Your task to perform on an android device: toggle priority inbox in the gmail app Image 0: 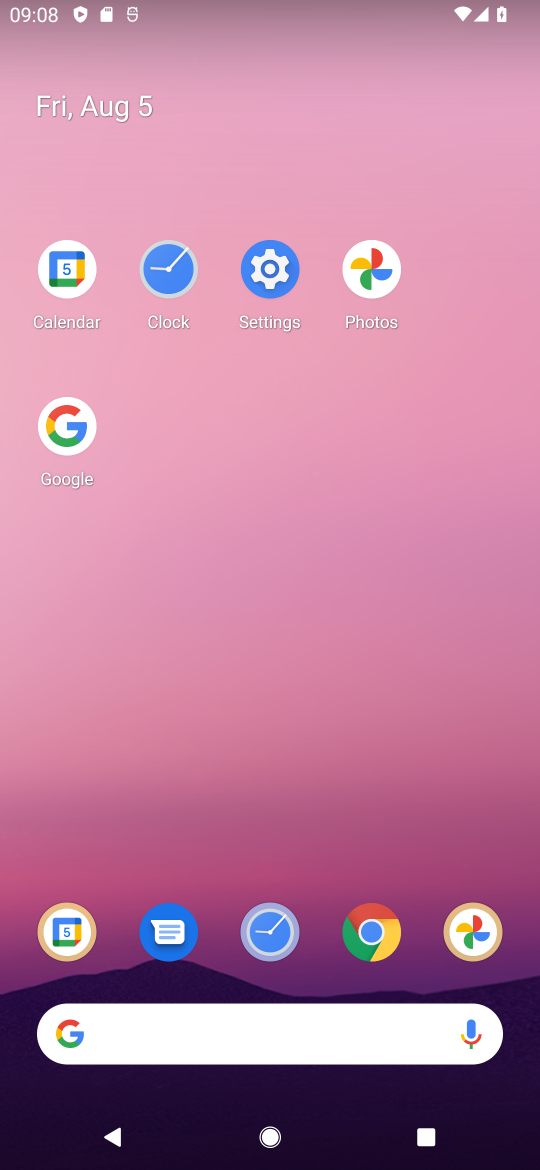
Step 0: drag from (324, 793) to (297, 284)
Your task to perform on an android device: toggle priority inbox in the gmail app Image 1: 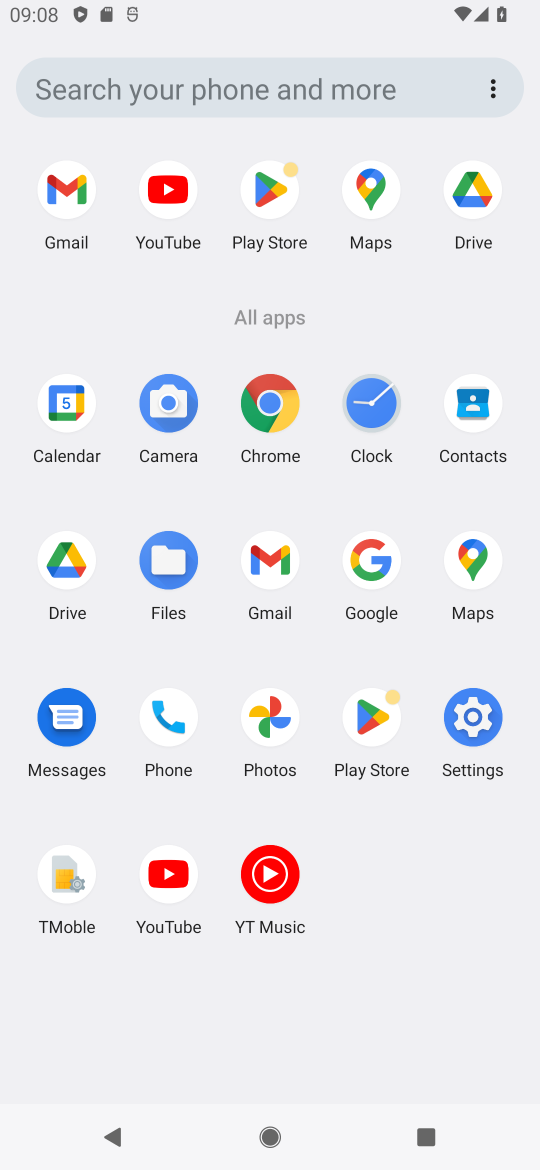
Step 1: drag from (275, 553) to (193, 443)
Your task to perform on an android device: toggle priority inbox in the gmail app Image 2: 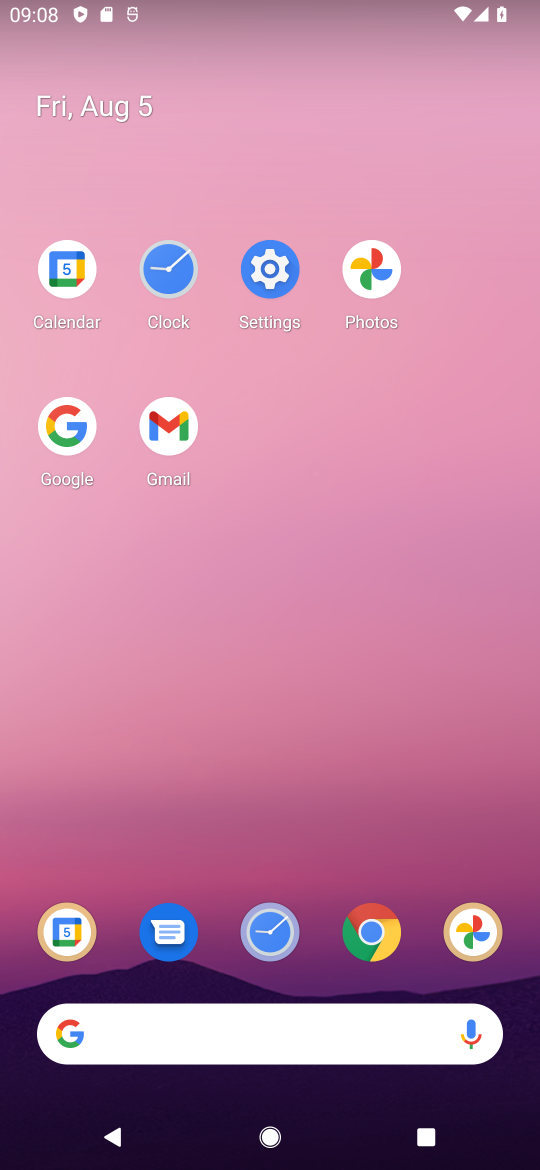
Step 2: click (163, 409)
Your task to perform on an android device: toggle priority inbox in the gmail app Image 3: 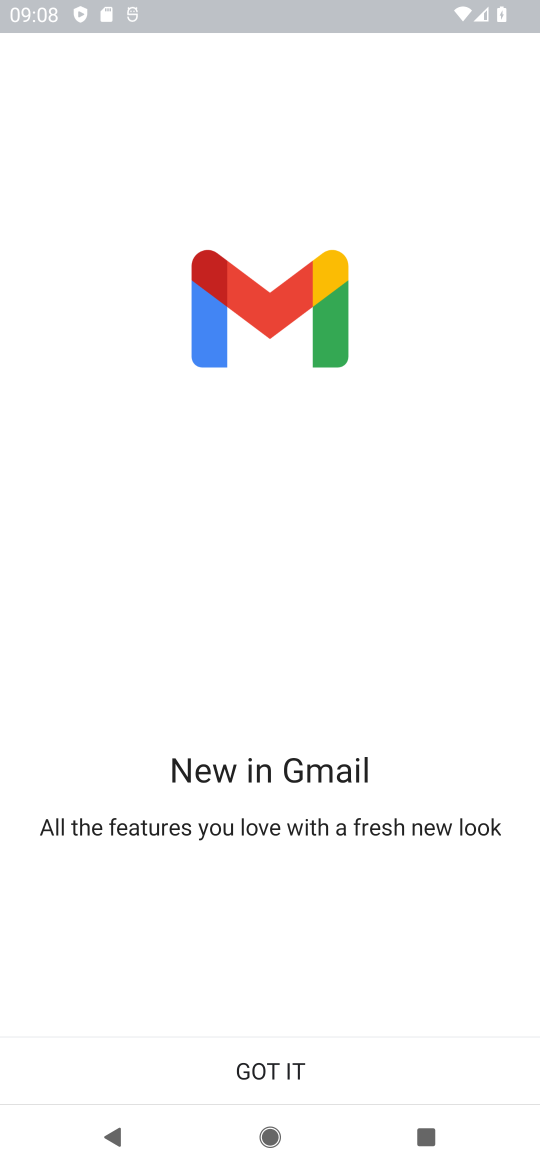
Step 3: click (317, 1058)
Your task to perform on an android device: toggle priority inbox in the gmail app Image 4: 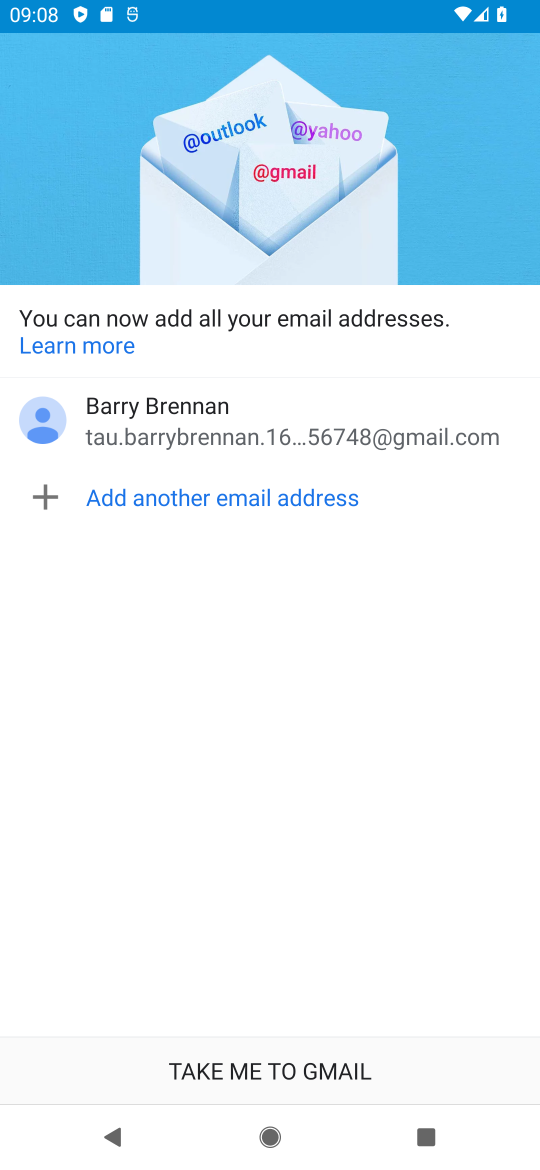
Step 4: click (314, 1042)
Your task to perform on an android device: toggle priority inbox in the gmail app Image 5: 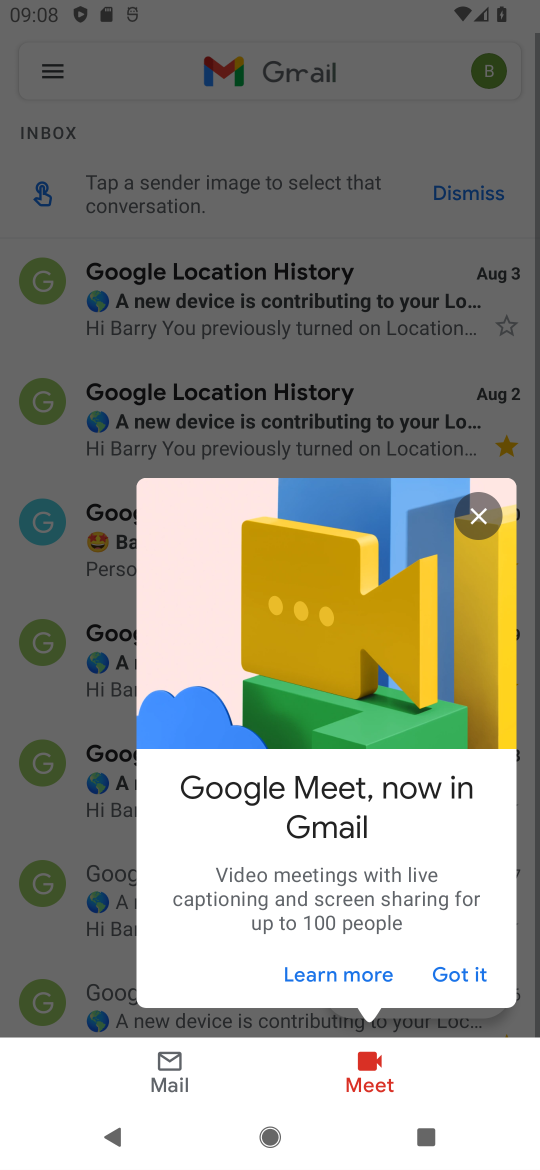
Step 5: click (461, 973)
Your task to perform on an android device: toggle priority inbox in the gmail app Image 6: 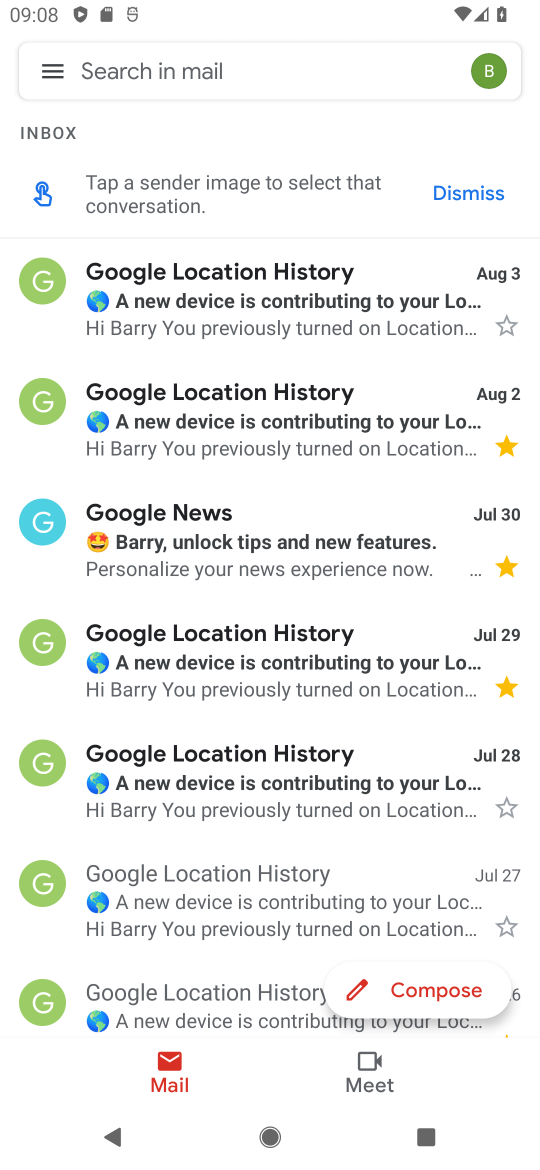
Step 6: click (50, 79)
Your task to perform on an android device: toggle priority inbox in the gmail app Image 7: 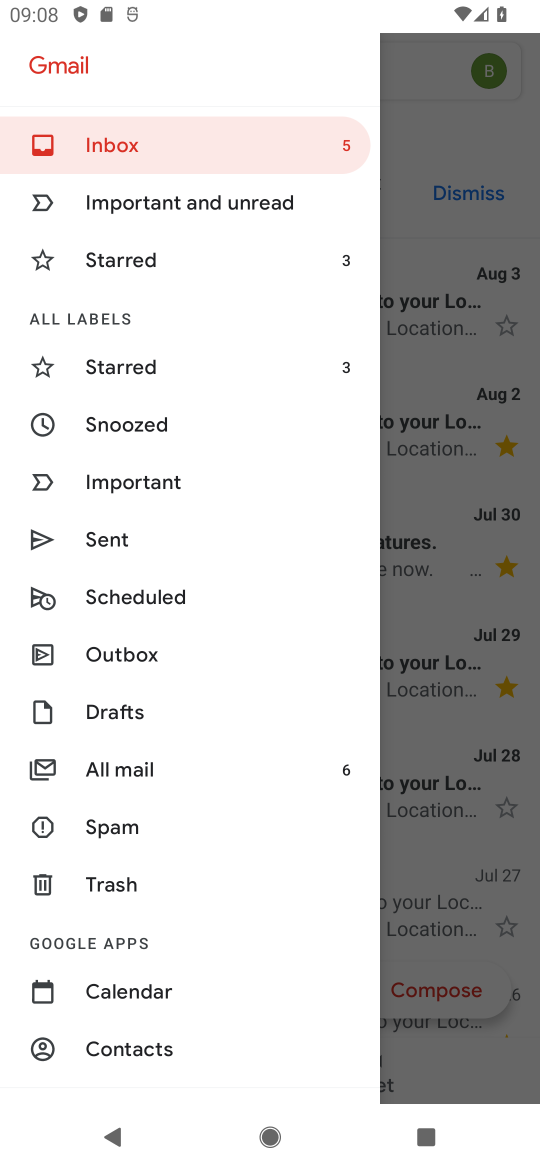
Step 7: drag from (235, 957) to (260, 435)
Your task to perform on an android device: toggle priority inbox in the gmail app Image 8: 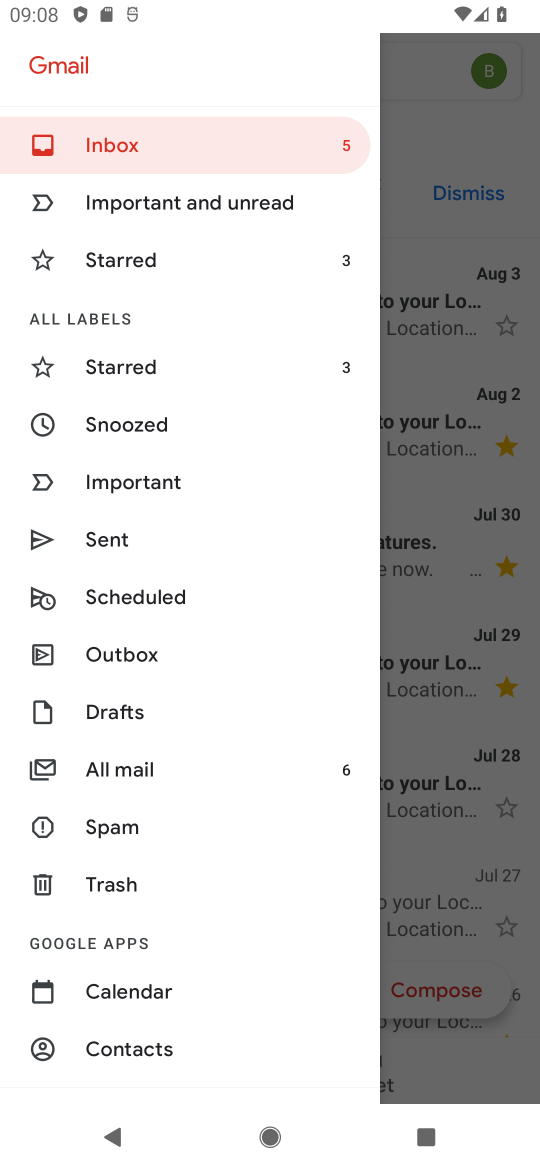
Step 8: drag from (194, 940) to (240, 362)
Your task to perform on an android device: toggle priority inbox in the gmail app Image 9: 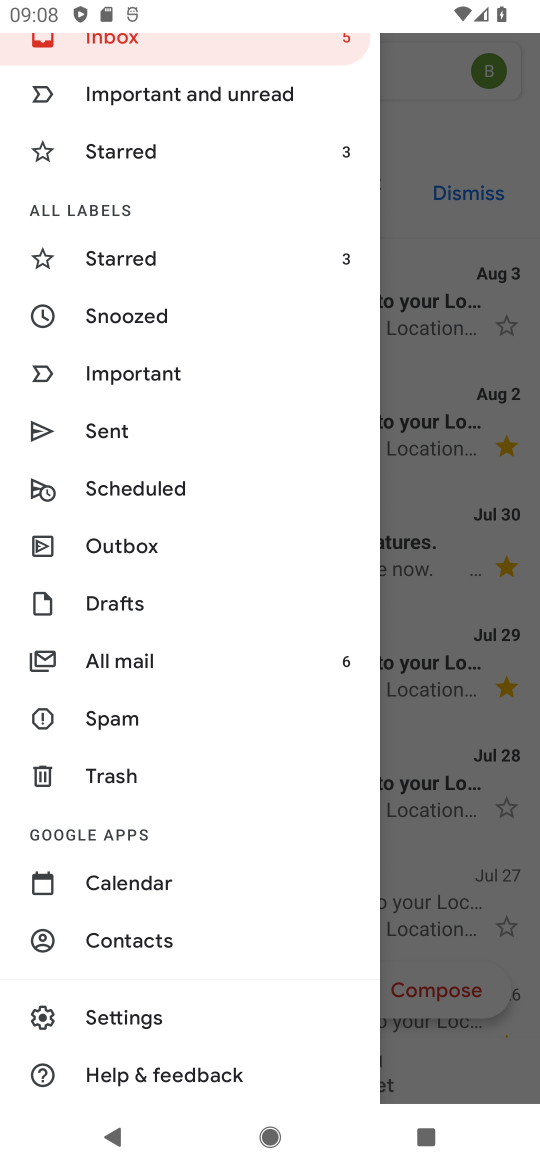
Step 9: click (135, 1017)
Your task to perform on an android device: toggle priority inbox in the gmail app Image 10: 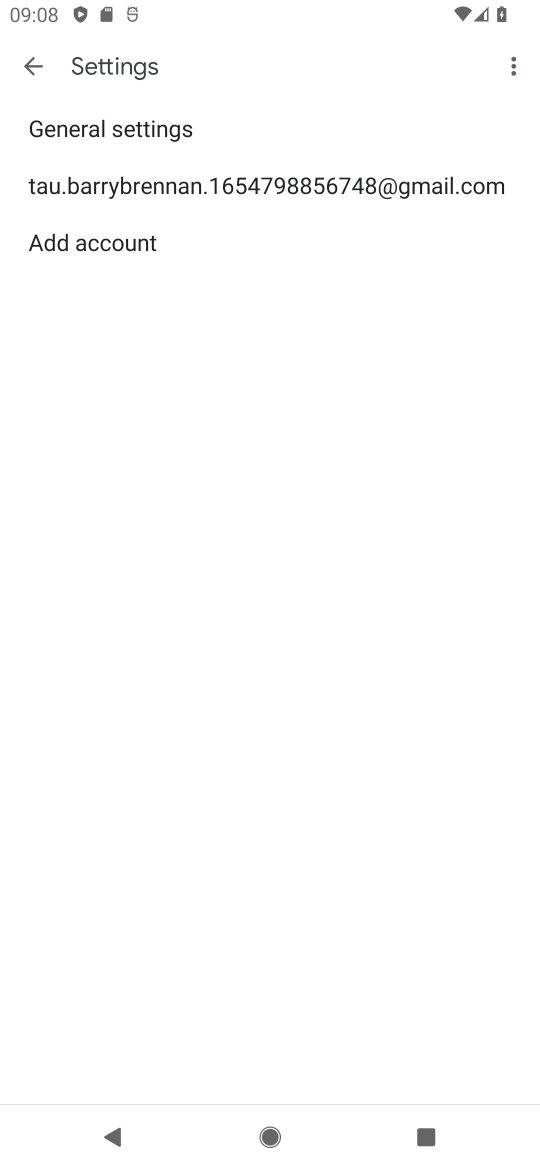
Step 10: click (305, 189)
Your task to perform on an android device: toggle priority inbox in the gmail app Image 11: 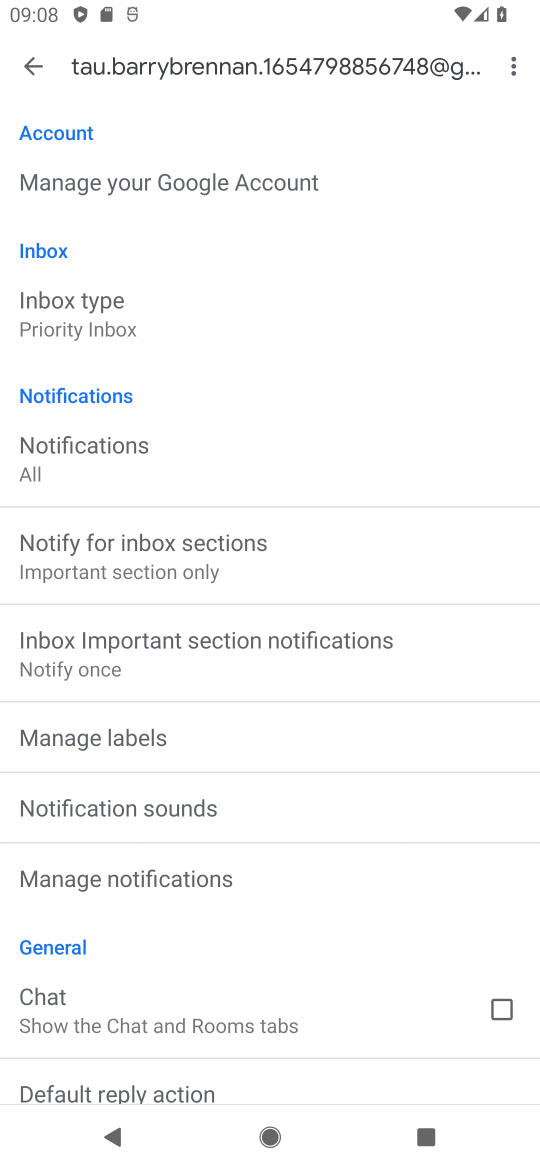
Step 11: click (143, 300)
Your task to perform on an android device: toggle priority inbox in the gmail app Image 12: 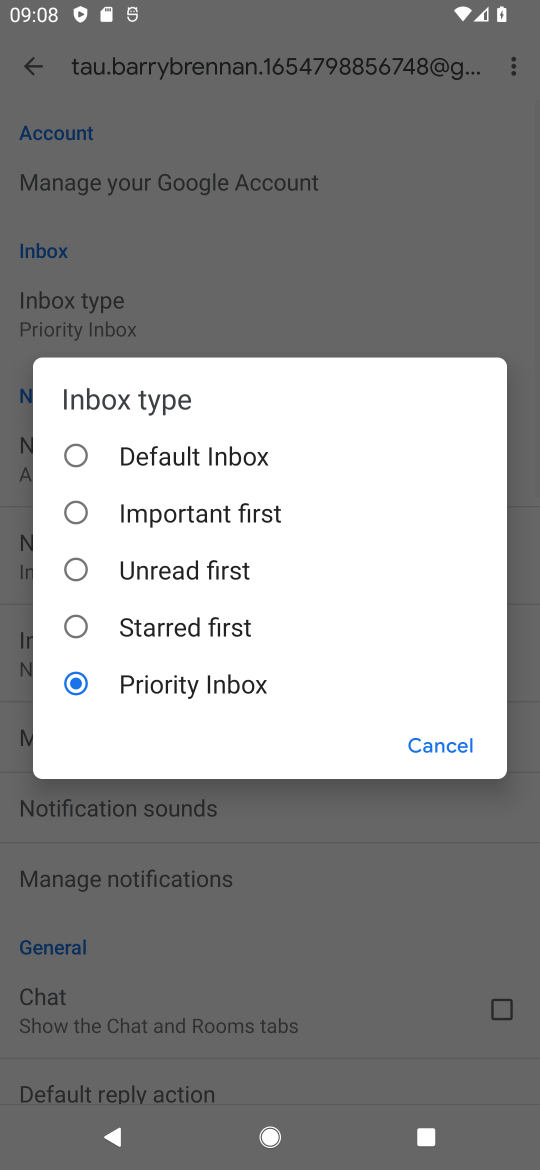
Step 12: click (209, 451)
Your task to perform on an android device: toggle priority inbox in the gmail app Image 13: 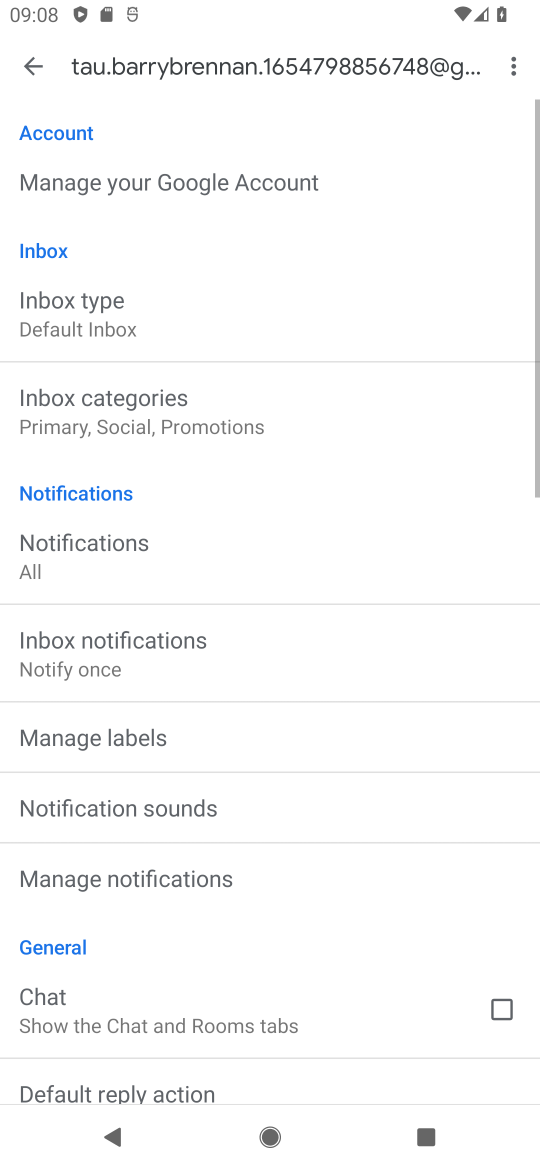
Step 13: task complete